Your task to perform on an android device: Go to CNN.com Image 0: 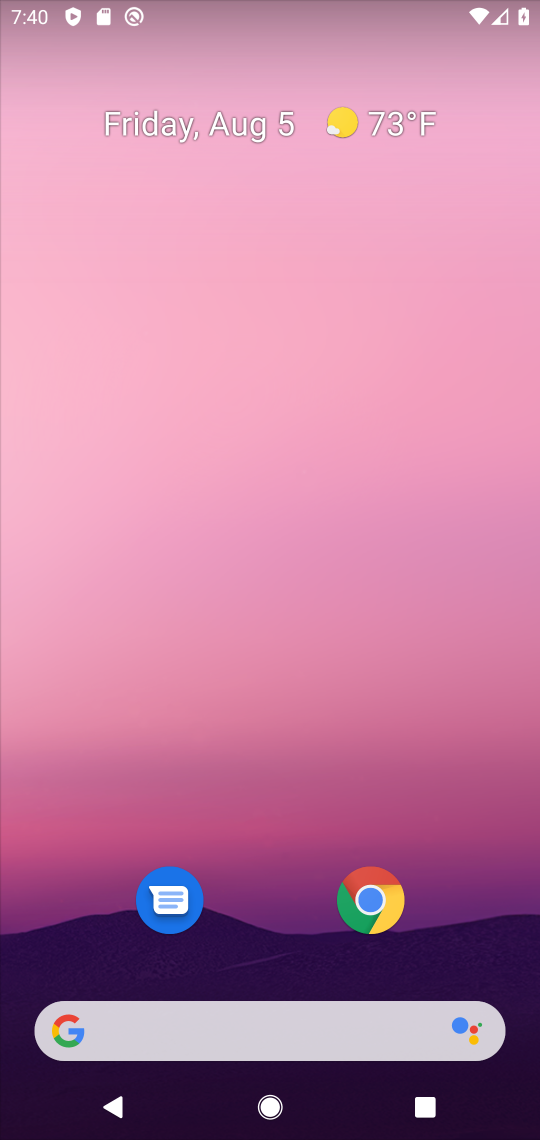
Step 0: drag from (254, 899) to (233, 275)
Your task to perform on an android device: Go to CNN.com Image 1: 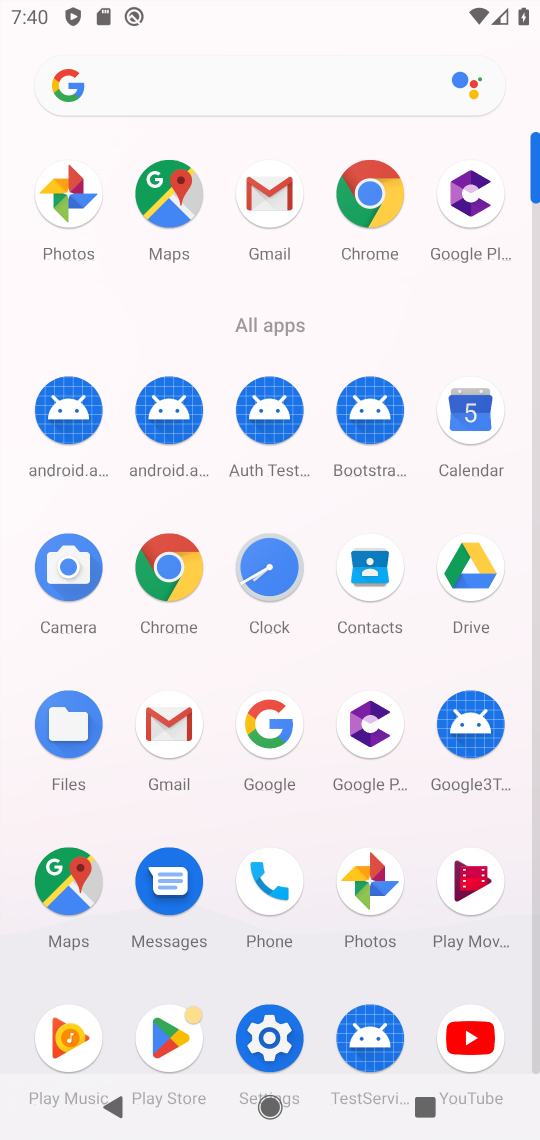
Step 1: click (265, 730)
Your task to perform on an android device: Go to CNN.com Image 2: 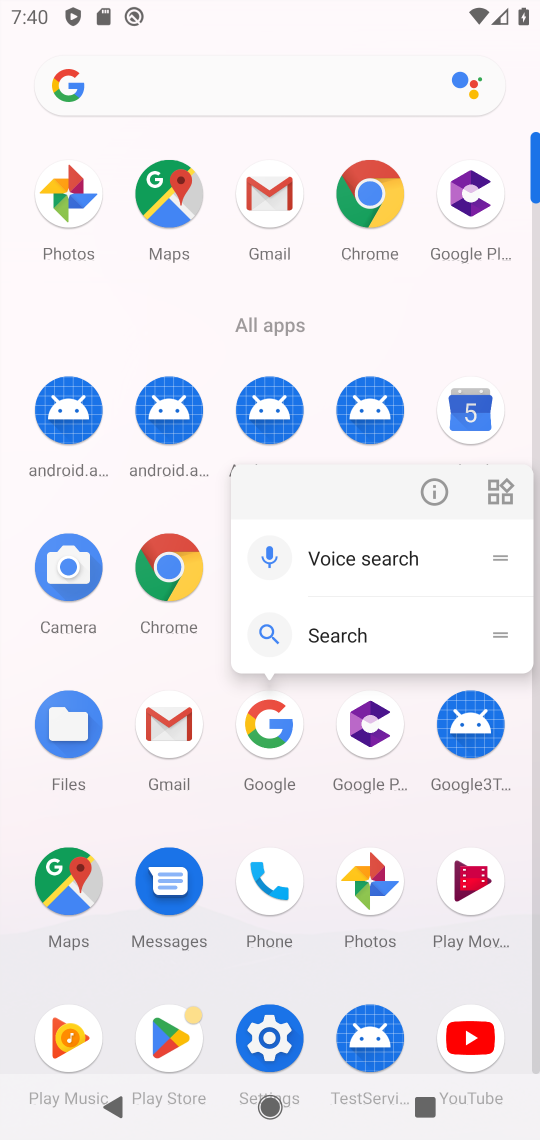
Step 2: click (258, 712)
Your task to perform on an android device: Go to CNN.com Image 3: 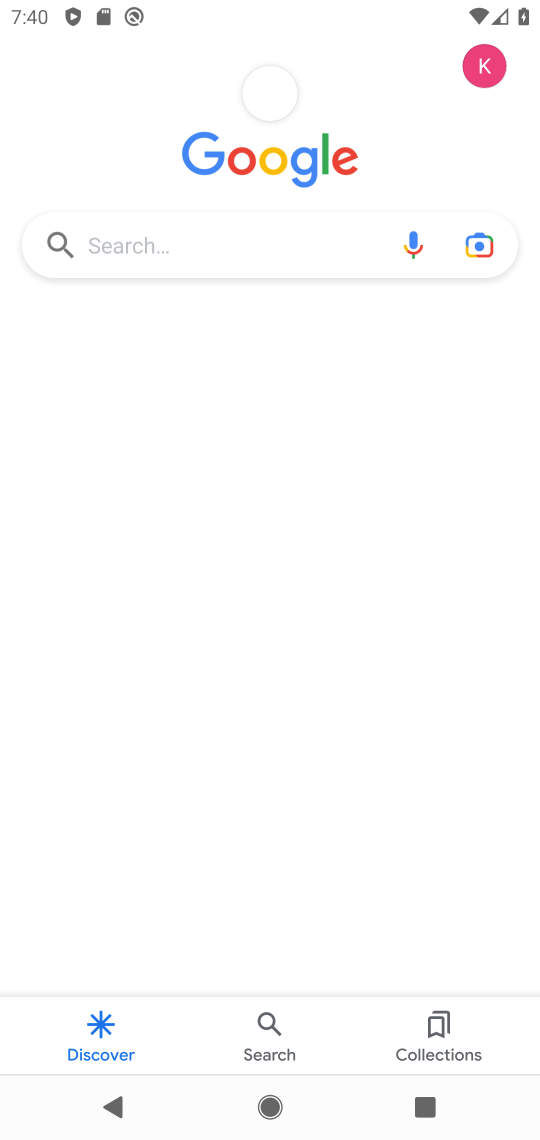
Step 3: click (178, 252)
Your task to perform on an android device: Go to CNN.com Image 4: 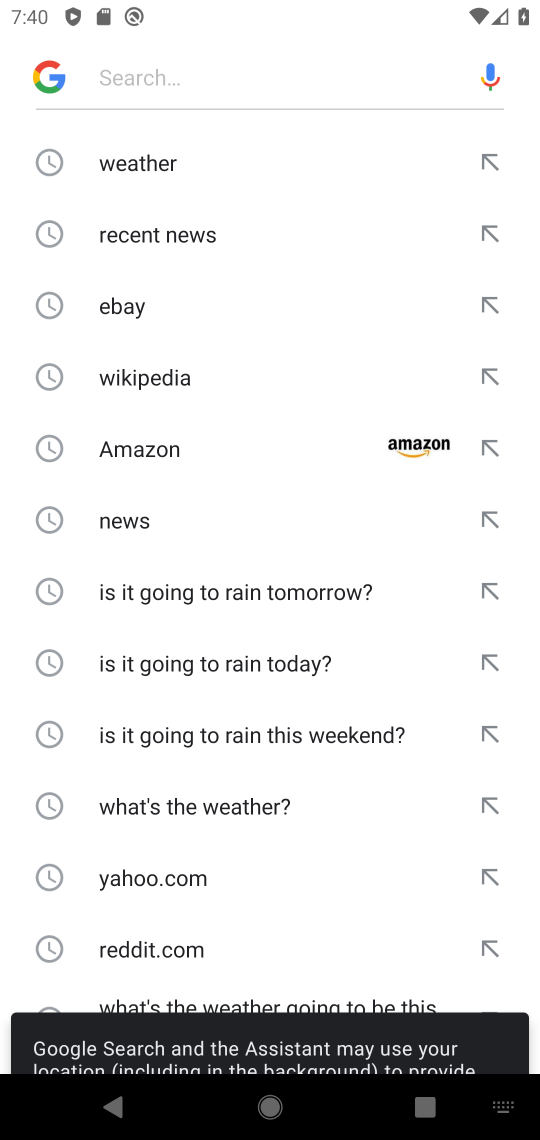
Step 4: drag from (171, 955) to (171, 383)
Your task to perform on an android device: Go to CNN.com Image 5: 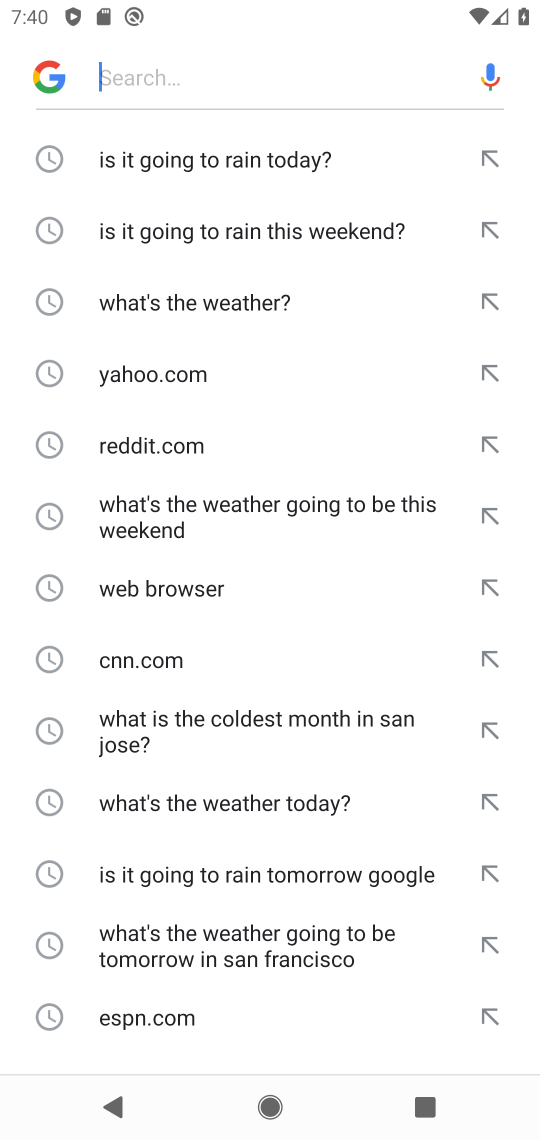
Step 5: click (134, 659)
Your task to perform on an android device: Go to CNN.com Image 6: 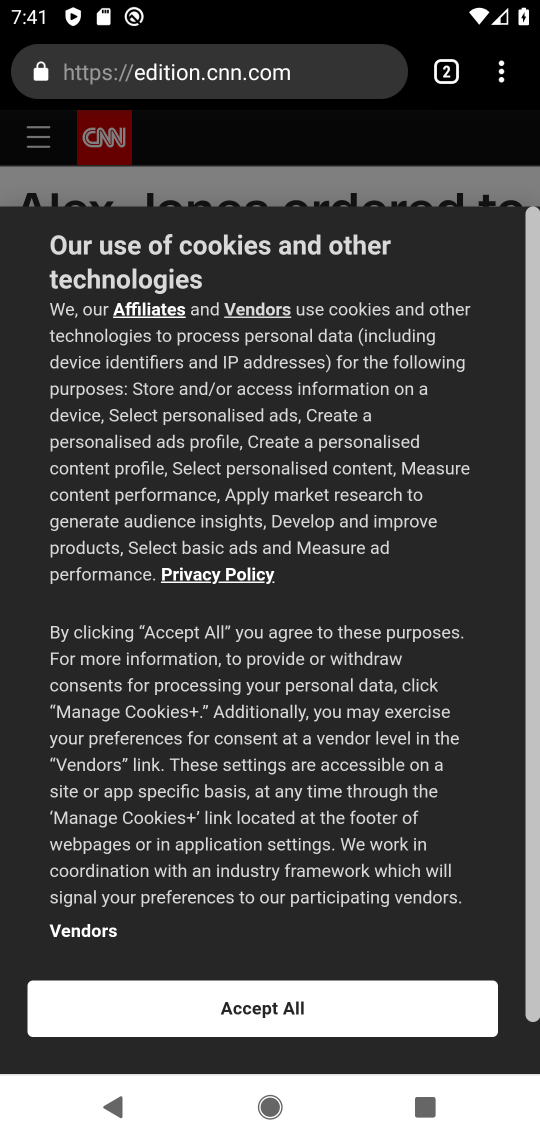
Step 6: task complete